Your task to perform on an android device: allow cookies in the chrome app Image 0: 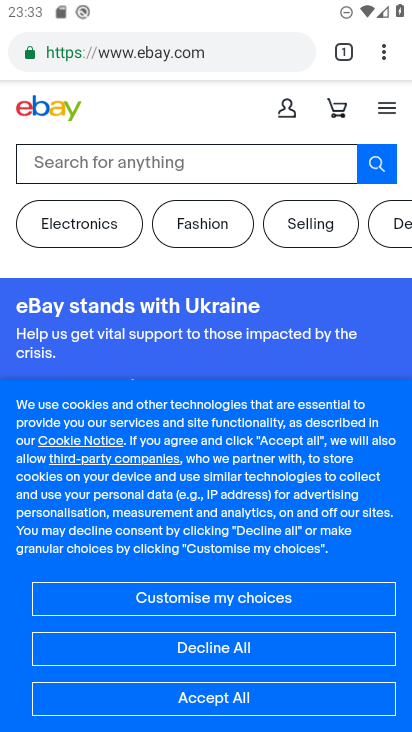
Step 0: press home button
Your task to perform on an android device: allow cookies in the chrome app Image 1: 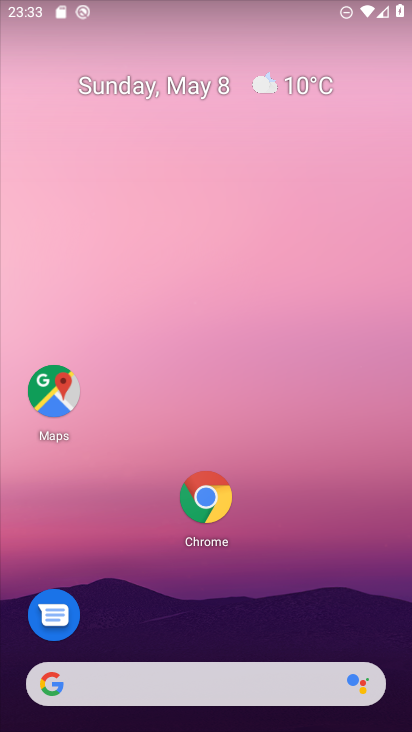
Step 1: click (310, 585)
Your task to perform on an android device: allow cookies in the chrome app Image 2: 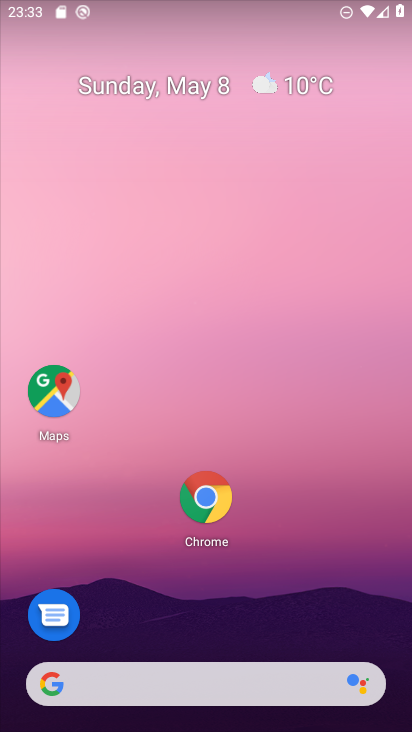
Step 2: click (214, 492)
Your task to perform on an android device: allow cookies in the chrome app Image 3: 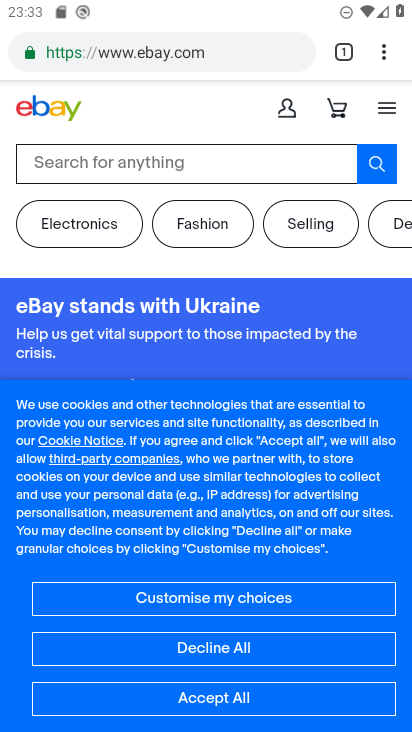
Step 3: drag from (384, 48) to (232, 639)
Your task to perform on an android device: allow cookies in the chrome app Image 4: 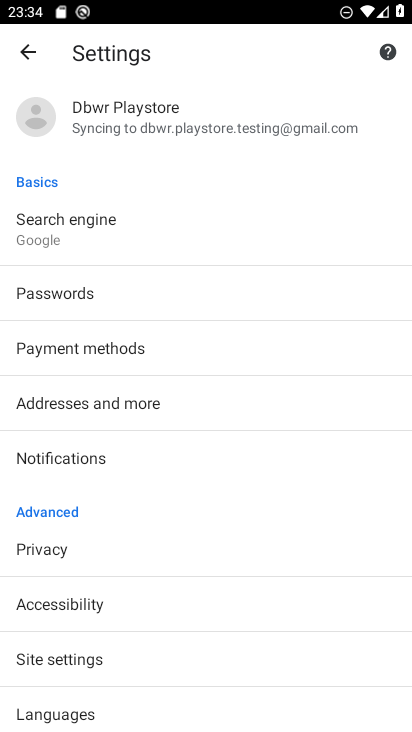
Step 4: drag from (219, 676) to (271, 266)
Your task to perform on an android device: allow cookies in the chrome app Image 5: 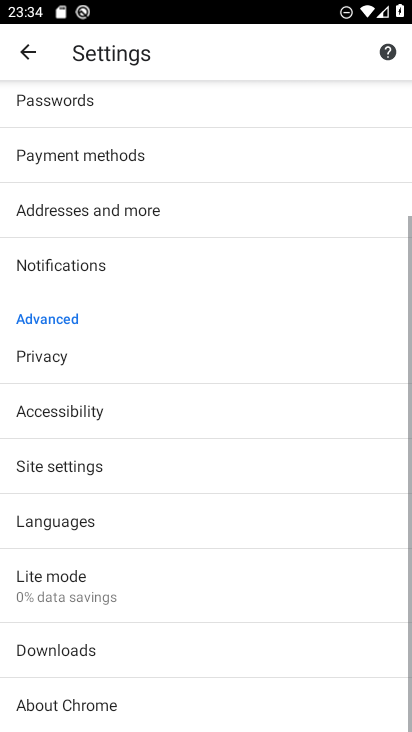
Step 5: click (107, 468)
Your task to perform on an android device: allow cookies in the chrome app Image 6: 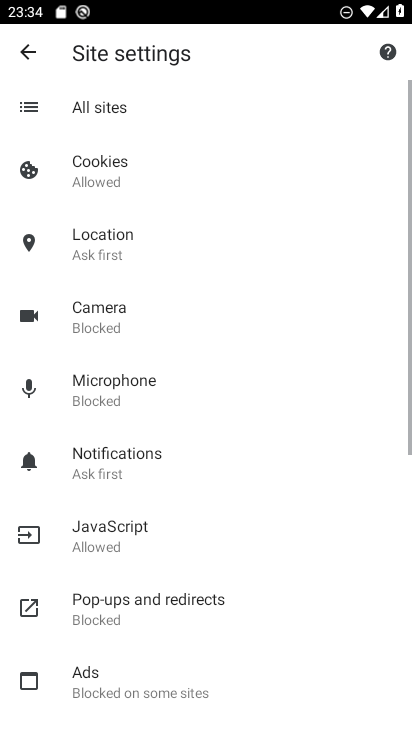
Step 6: click (202, 185)
Your task to perform on an android device: allow cookies in the chrome app Image 7: 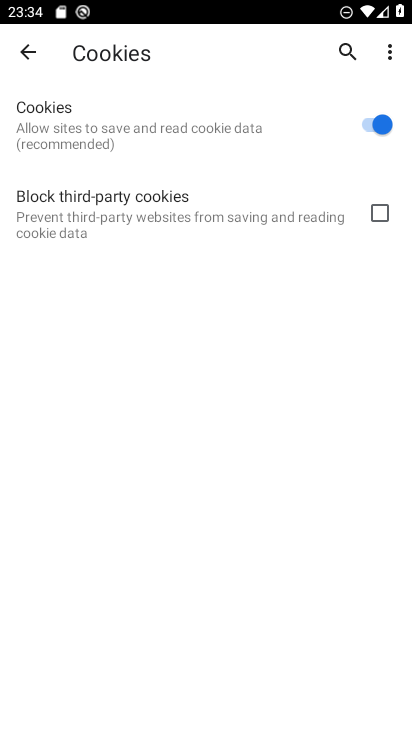
Step 7: task complete